Your task to perform on an android device: turn vacation reply on in the gmail app Image 0: 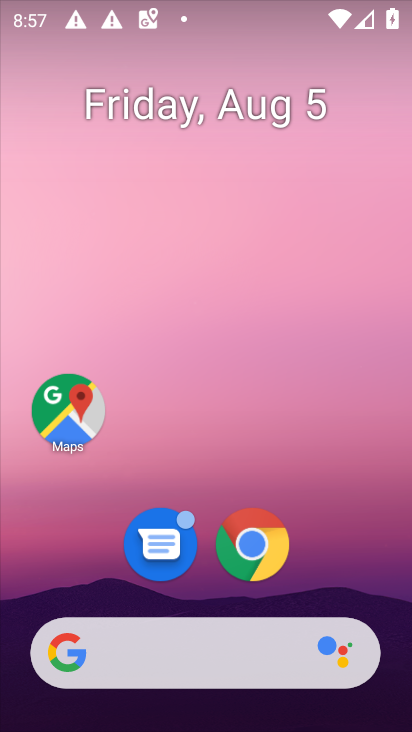
Step 0: drag from (138, 462) to (162, 21)
Your task to perform on an android device: turn vacation reply on in the gmail app Image 1: 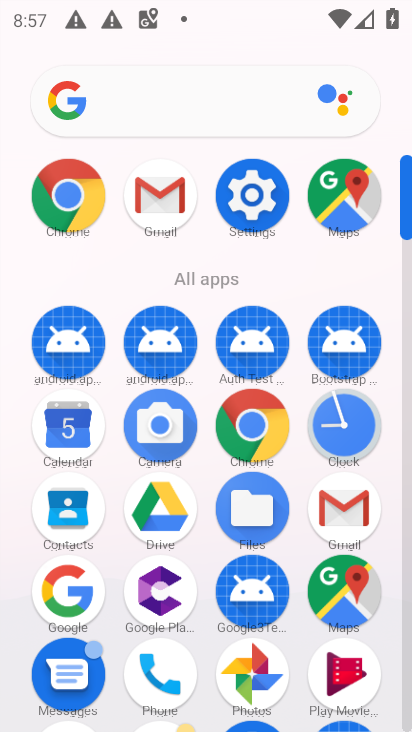
Step 1: click (156, 205)
Your task to perform on an android device: turn vacation reply on in the gmail app Image 2: 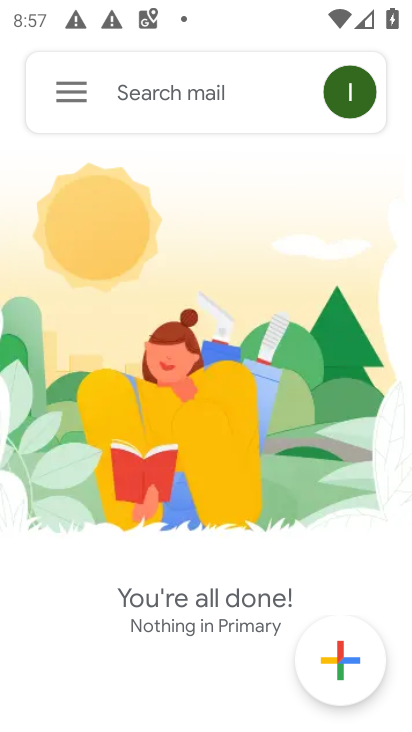
Step 2: click (74, 97)
Your task to perform on an android device: turn vacation reply on in the gmail app Image 3: 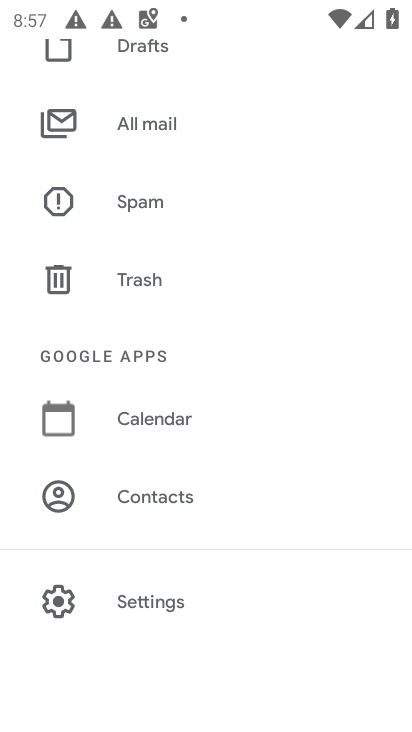
Step 3: click (176, 604)
Your task to perform on an android device: turn vacation reply on in the gmail app Image 4: 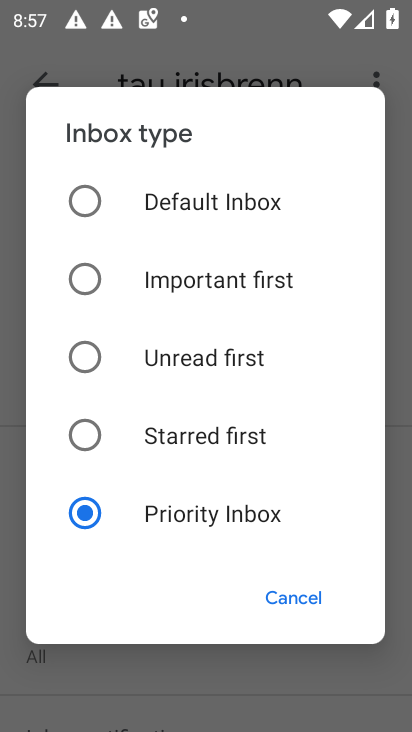
Step 4: click (281, 599)
Your task to perform on an android device: turn vacation reply on in the gmail app Image 5: 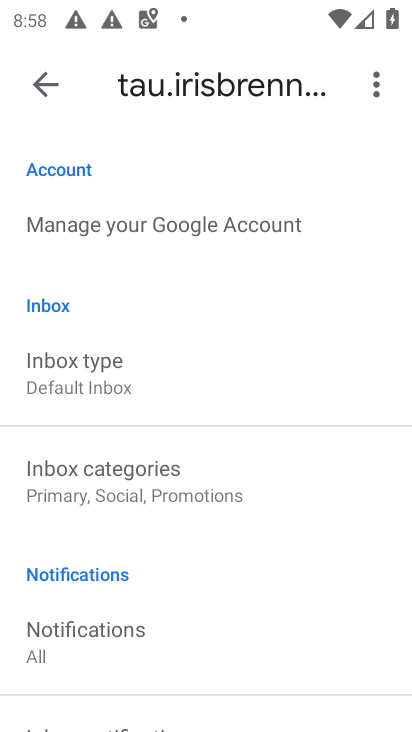
Step 5: drag from (153, 618) to (98, 276)
Your task to perform on an android device: turn vacation reply on in the gmail app Image 6: 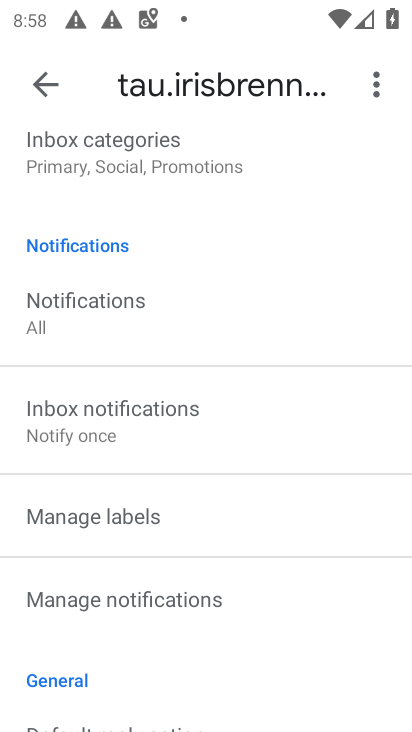
Step 6: drag from (116, 614) to (82, 188)
Your task to perform on an android device: turn vacation reply on in the gmail app Image 7: 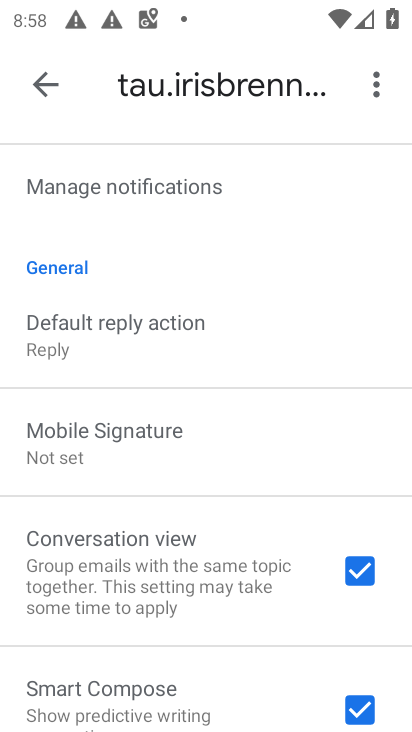
Step 7: drag from (96, 638) to (65, 268)
Your task to perform on an android device: turn vacation reply on in the gmail app Image 8: 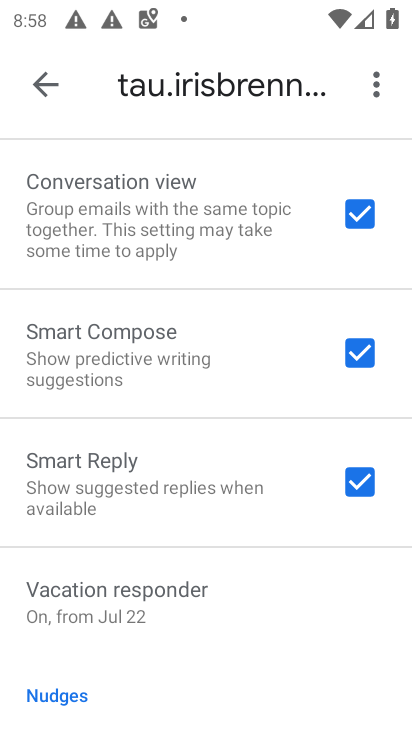
Step 8: click (50, 615)
Your task to perform on an android device: turn vacation reply on in the gmail app Image 9: 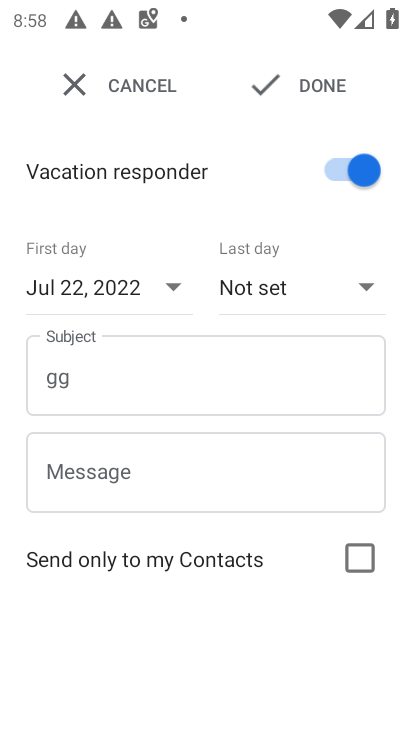
Step 9: task complete